Your task to perform on an android device: Go to Amazon Image 0: 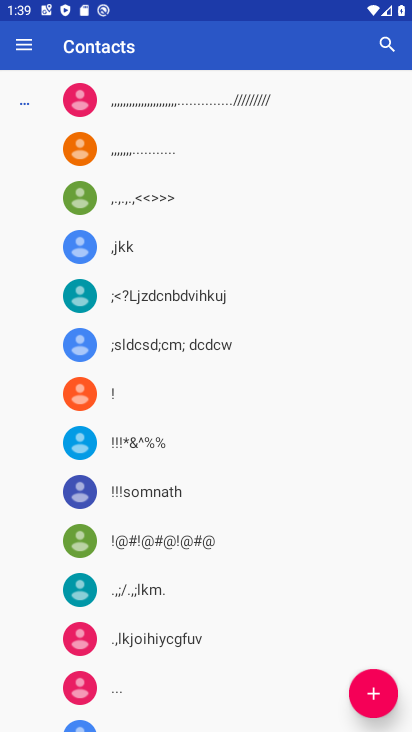
Step 0: press home button
Your task to perform on an android device: Go to Amazon Image 1: 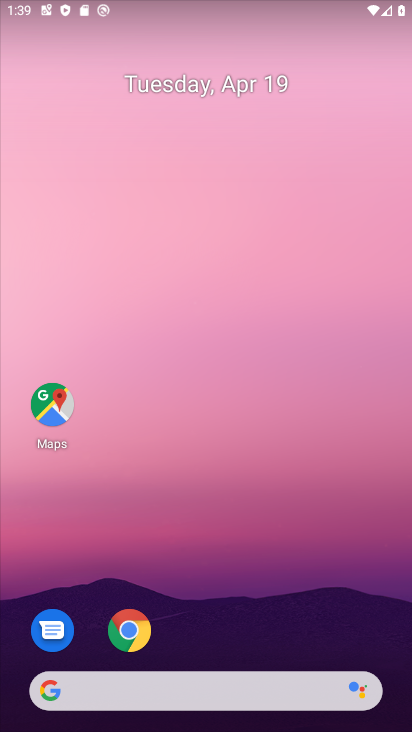
Step 1: click (130, 625)
Your task to perform on an android device: Go to Amazon Image 2: 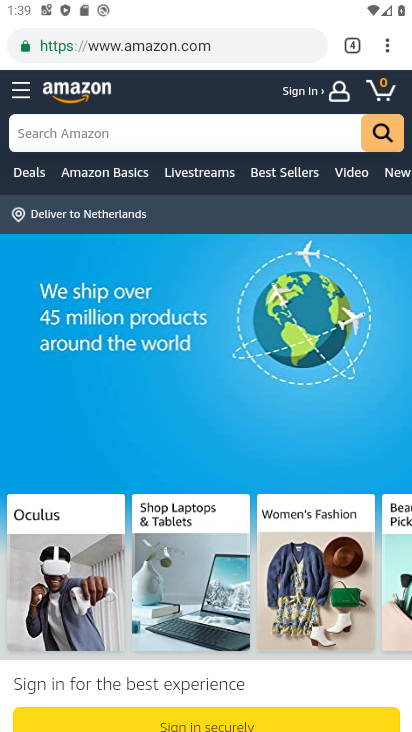
Step 2: task complete